Your task to perform on an android device: add a contact in the contacts app Image 0: 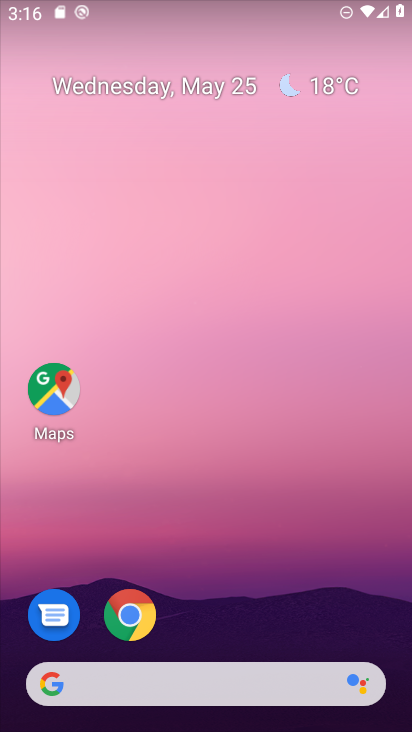
Step 0: drag from (236, 547) to (224, 144)
Your task to perform on an android device: add a contact in the contacts app Image 1: 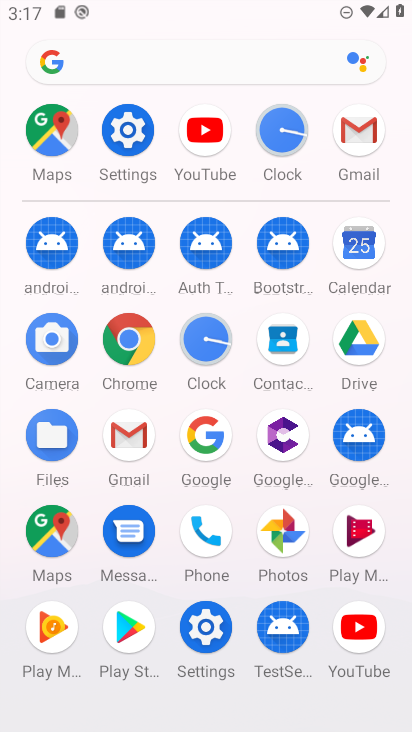
Step 1: click (283, 331)
Your task to perform on an android device: add a contact in the contacts app Image 2: 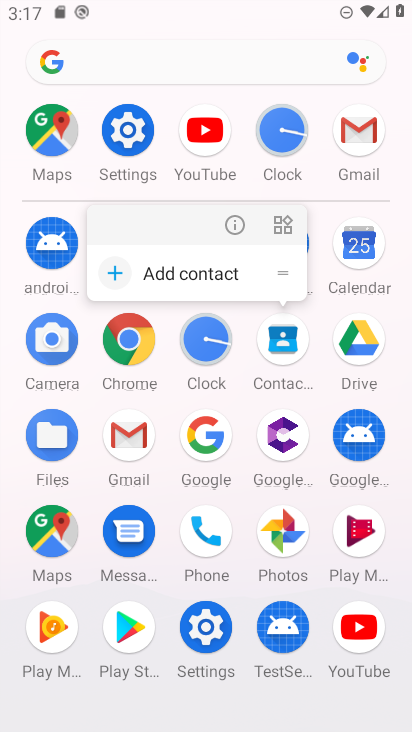
Step 2: click (283, 347)
Your task to perform on an android device: add a contact in the contacts app Image 3: 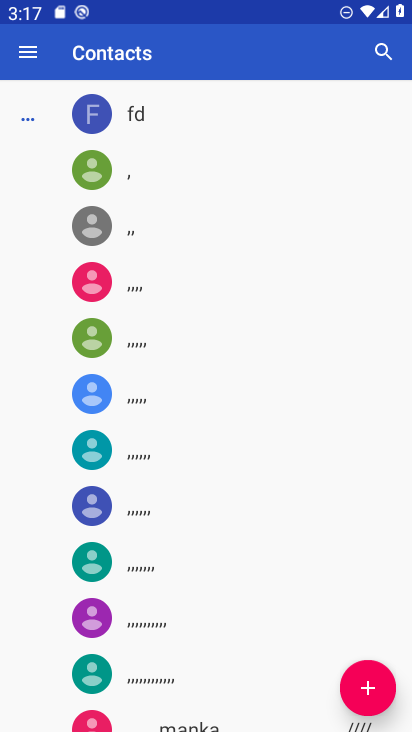
Step 3: click (378, 681)
Your task to perform on an android device: add a contact in the contacts app Image 4: 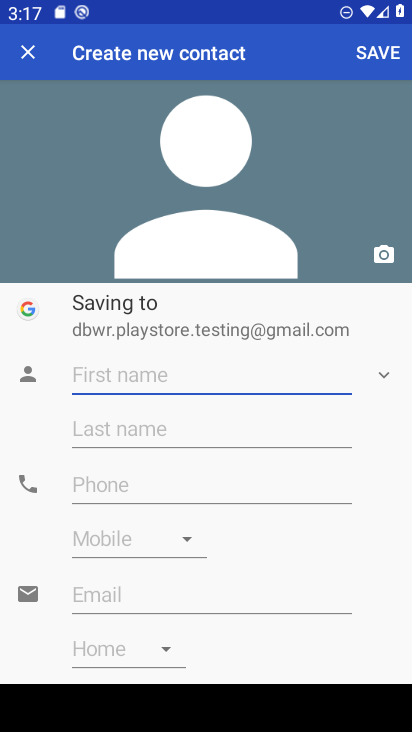
Step 4: type "Vishnu Bhai"
Your task to perform on an android device: add a contact in the contacts app Image 5: 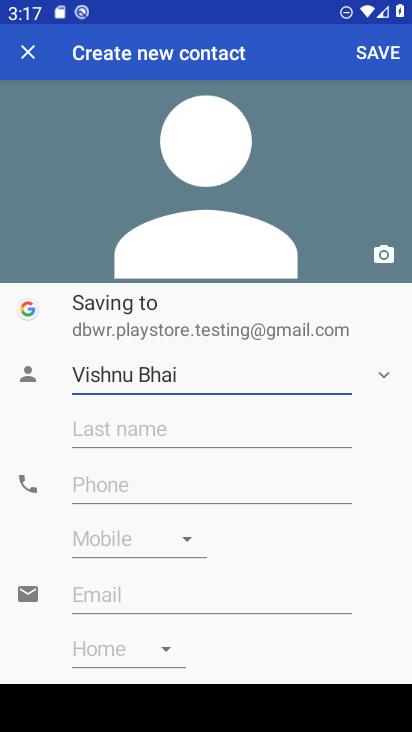
Step 5: click (170, 487)
Your task to perform on an android device: add a contact in the contacts app Image 6: 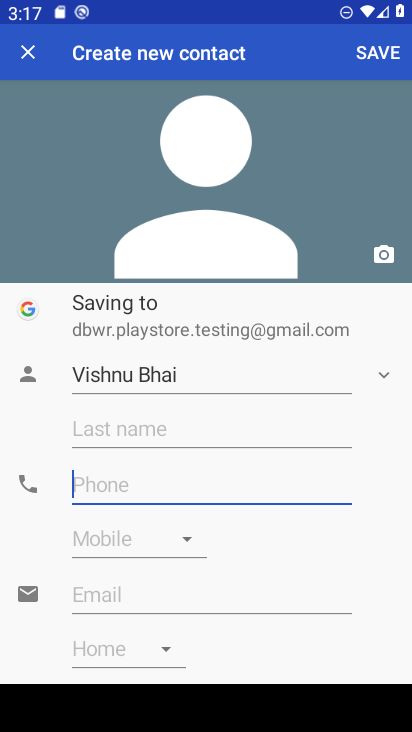
Step 6: type "011222334455"
Your task to perform on an android device: add a contact in the contacts app Image 7: 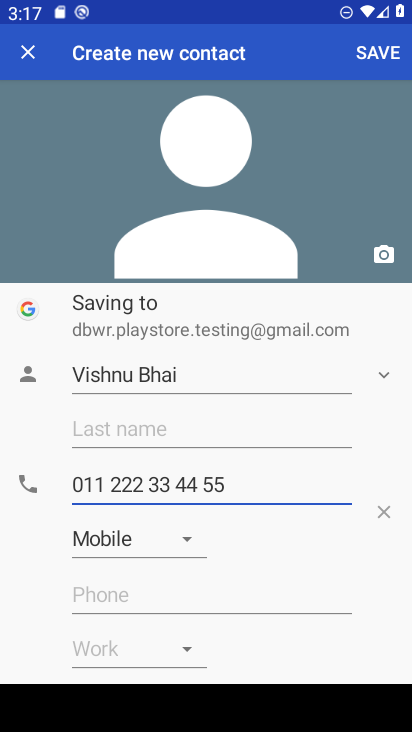
Step 7: click (389, 47)
Your task to perform on an android device: add a contact in the contacts app Image 8: 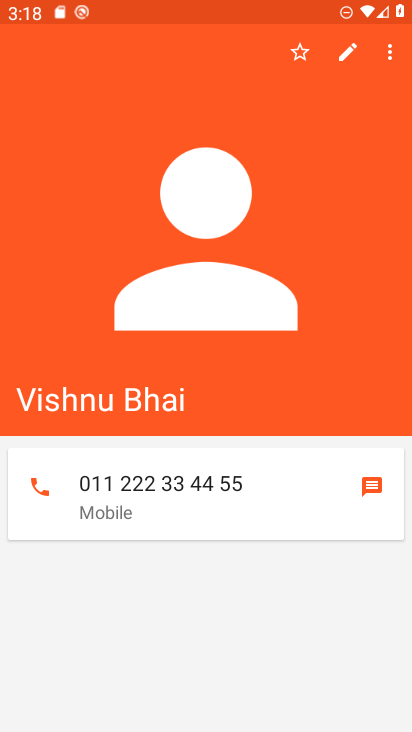
Step 8: task complete